Your task to perform on an android device: When is my next meeting? Image 0: 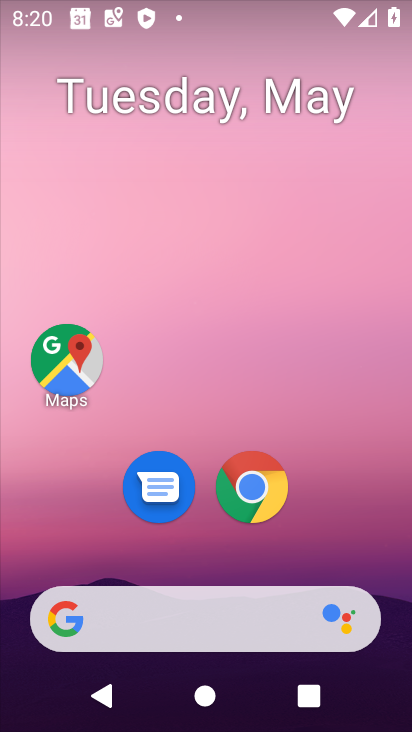
Step 0: drag from (376, 552) to (394, 101)
Your task to perform on an android device: When is my next meeting? Image 1: 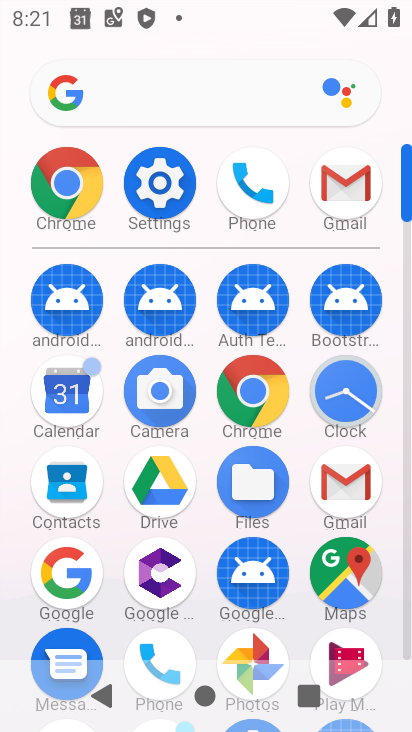
Step 1: click (75, 407)
Your task to perform on an android device: When is my next meeting? Image 2: 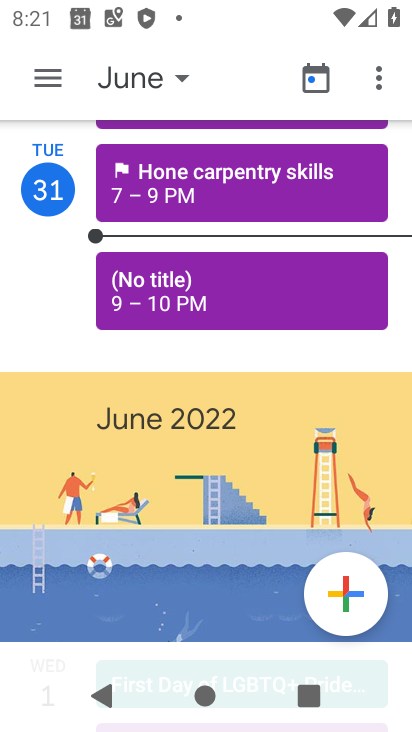
Step 2: drag from (183, 495) to (192, 373)
Your task to perform on an android device: When is my next meeting? Image 3: 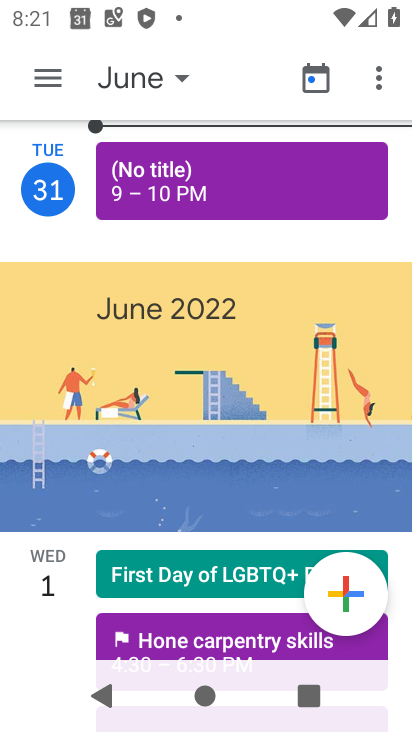
Step 3: drag from (203, 498) to (241, 274)
Your task to perform on an android device: When is my next meeting? Image 4: 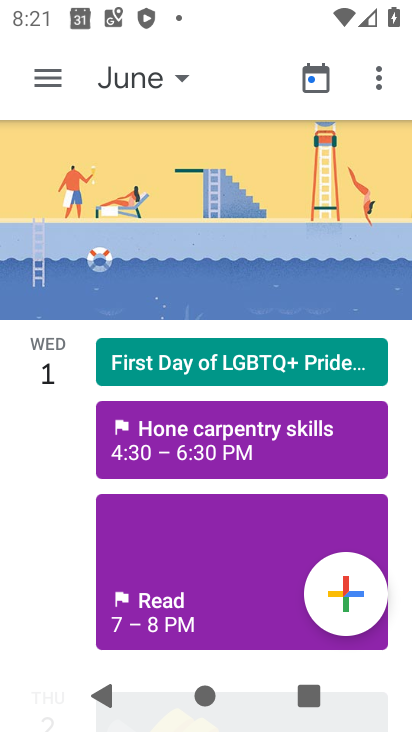
Step 4: drag from (240, 551) to (260, 319)
Your task to perform on an android device: When is my next meeting? Image 5: 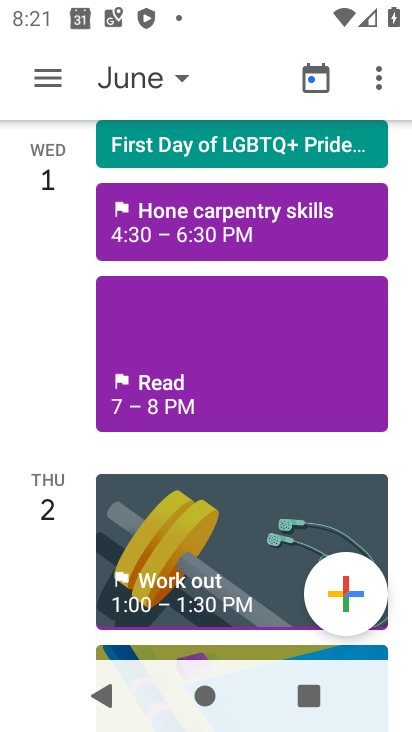
Step 5: click (234, 382)
Your task to perform on an android device: When is my next meeting? Image 6: 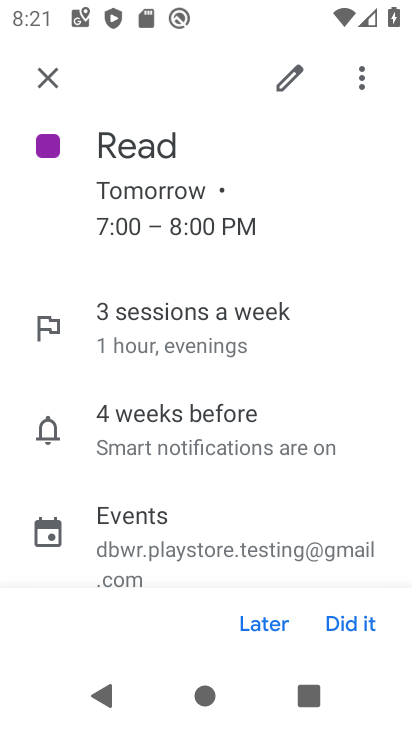
Step 6: task complete